Your task to perform on an android device: Search for seafood restaurants on Google Maps Image 0: 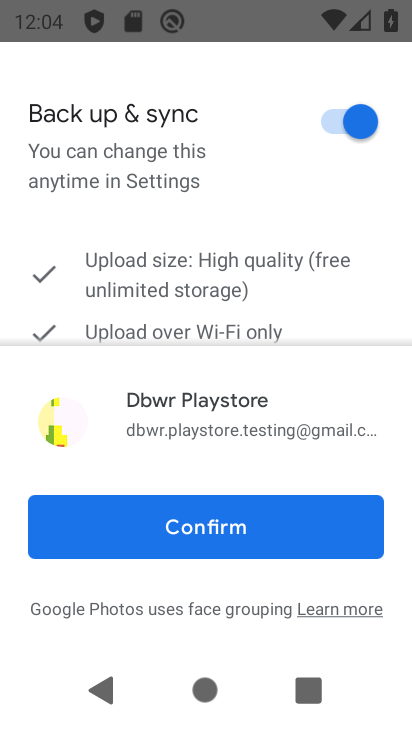
Step 0: press home button
Your task to perform on an android device: Search for seafood restaurants on Google Maps Image 1: 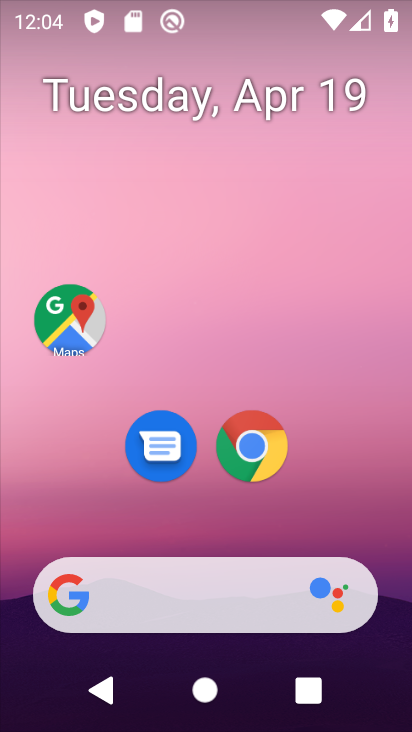
Step 1: click (65, 317)
Your task to perform on an android device: Search for seafood restaurants on Google Maps Image 2: 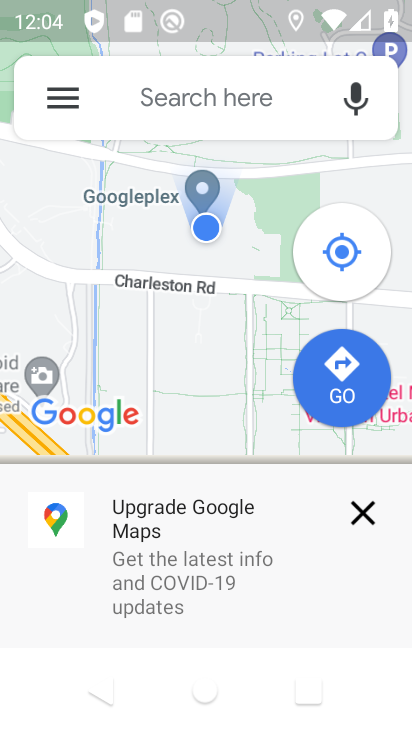
Step 2: click (128, 86)
Your task to perform on an android device: Search for seafood restaurants on Google Maps Image 3: 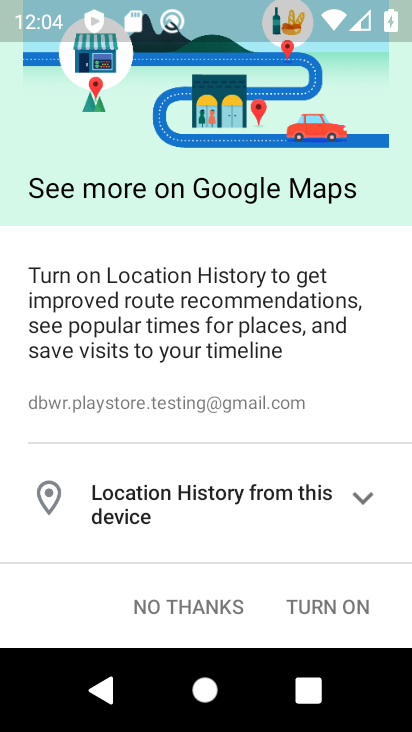
Step 3: click (167, 610)
Your task to perform on an android device: Search for seafood restaurants on Google Maps Image 4: 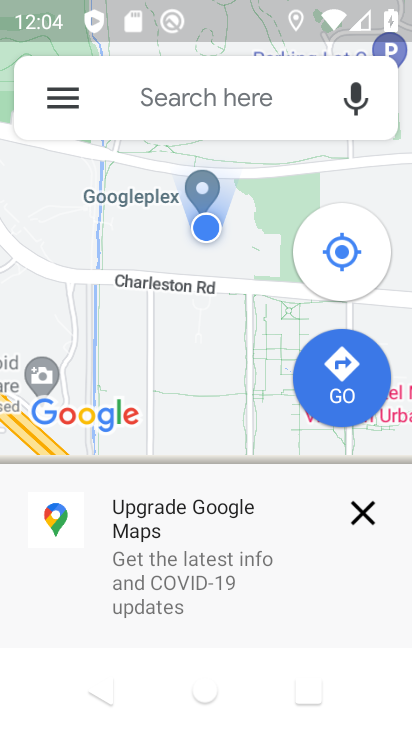
Step 4: click (244, 79)
Your task to perform on an android device: Search for seafood restaurants on Google Maps Image 5: 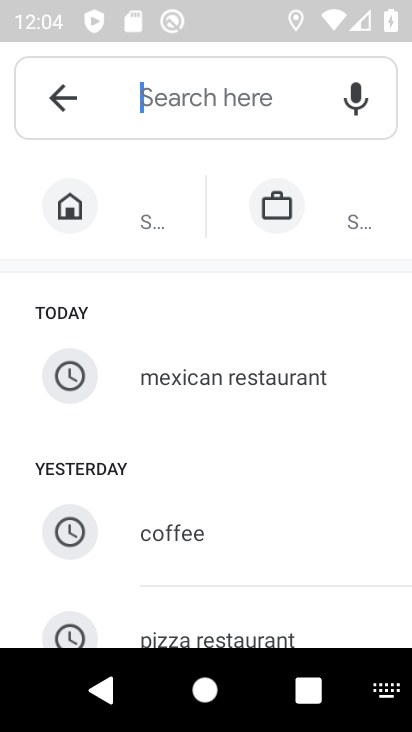
Step 5: drag from (248, 514) to (298, 207)
Your task to perform on an android device: Search for seafood restaurants on Google Maps Image 6: 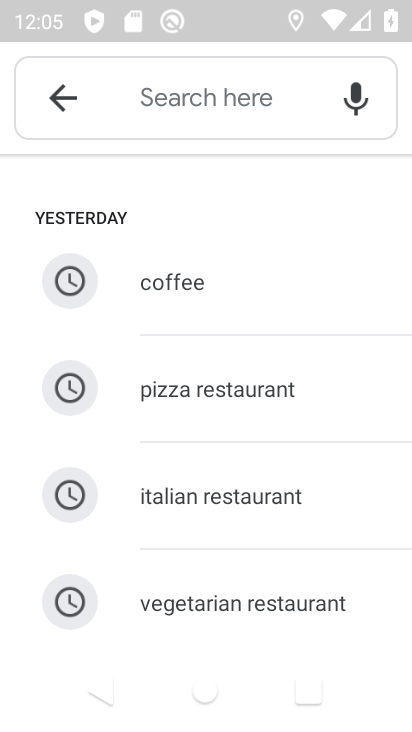
Step 6: drag from (267, 526) to (308, 288)
Your task to perform on an android device: Search for seafood restaurants on Google Maps Image 7: 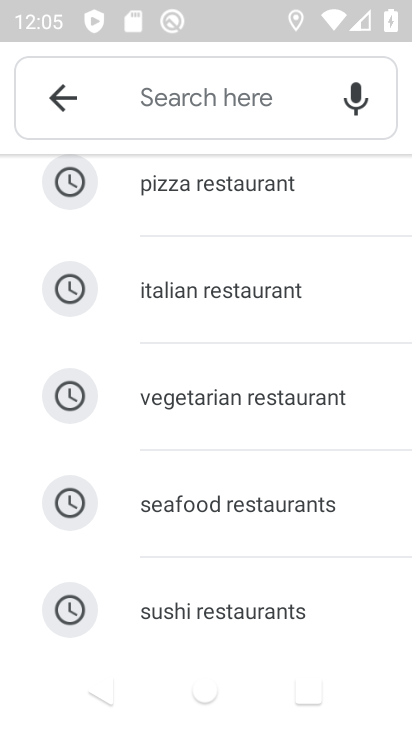
Step 7: click (267, 493)
Your task to perform on an android device: Search for seafood restaurants on Google Maps Image 8: 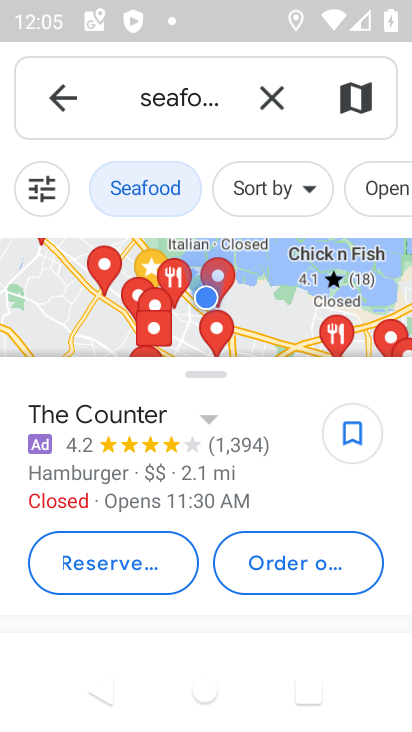
Step 8: task complete